Your task to perform on an android device: all mails in gmail Image 0: 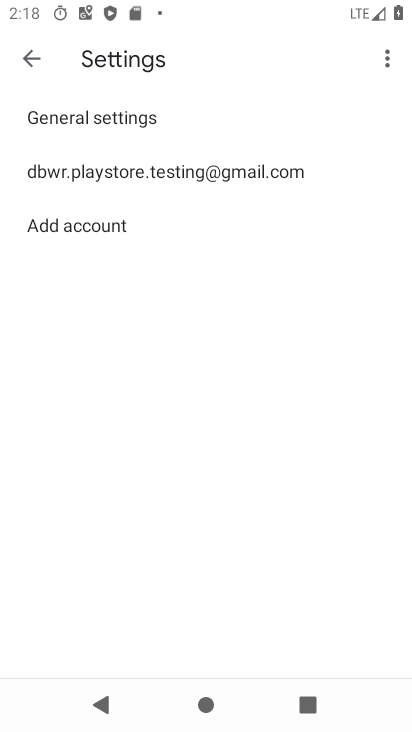
Step 0: press home button
Your task to perform on an android device: all mails in gmail Image 1: 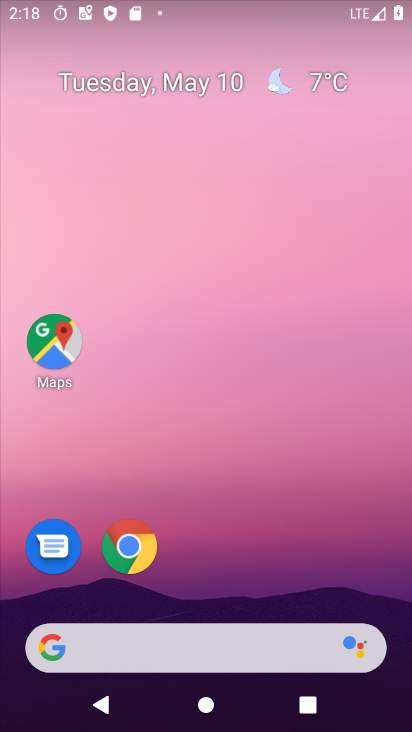
Step 1: drag from (302, 532) to (249, 89)
Your task to perform on an android device: all mails in gmail Image 2: 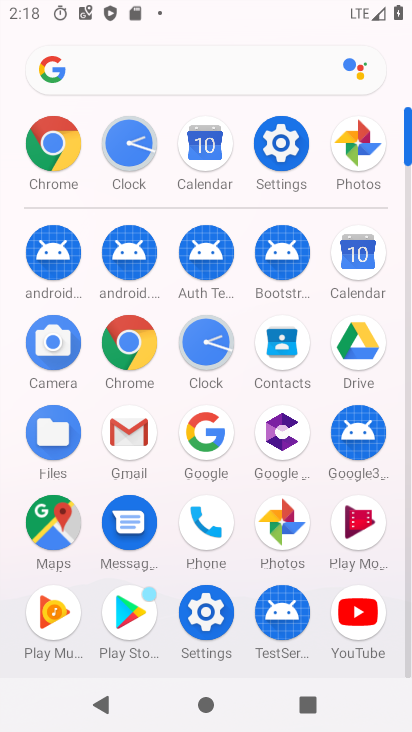
Step 2: click (135, 424)
Your task to perform on an android device: all mails in gmail Image 3: 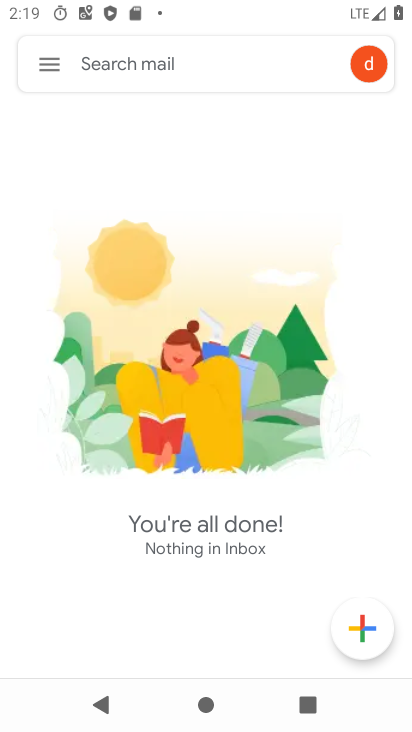
Step 3: click (53, 65)
Your task to perform on an android device: all mails in gmail Image 4: 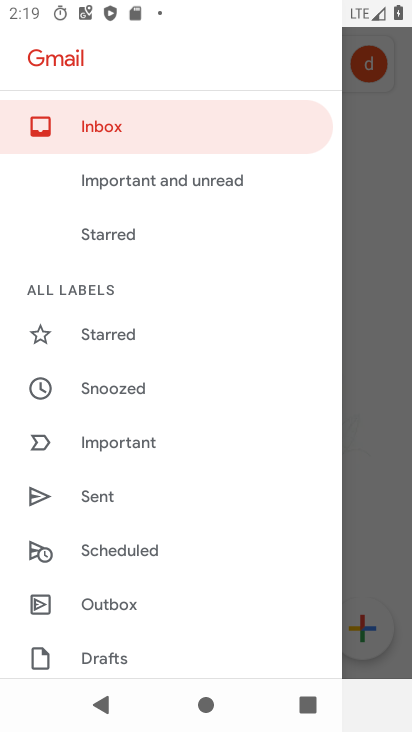
Step 4: drag from (156, 457) to (164, 208)
Your task to perform on an android device: all mails in gmail Image 5: 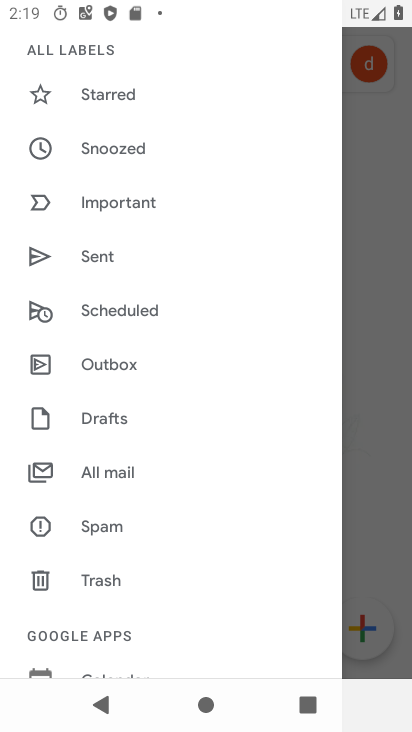
Step 5: click (149, 470)
Your task to perform on an android device: all mails in gmail Image 6: 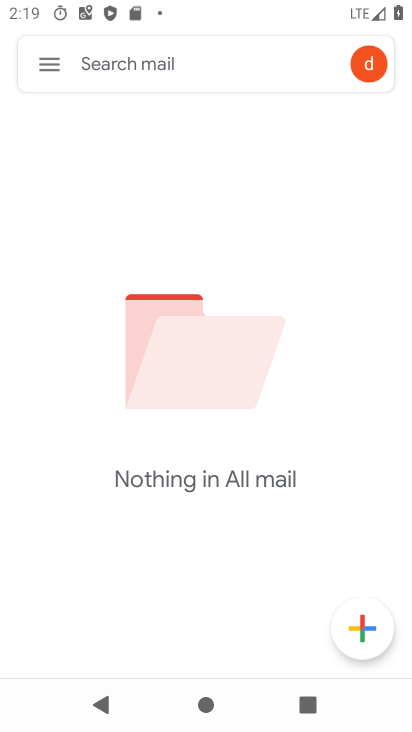
Step 6: task complete